Your task to perform on an android device: turn off notifications settings in the gmail app Image 0: 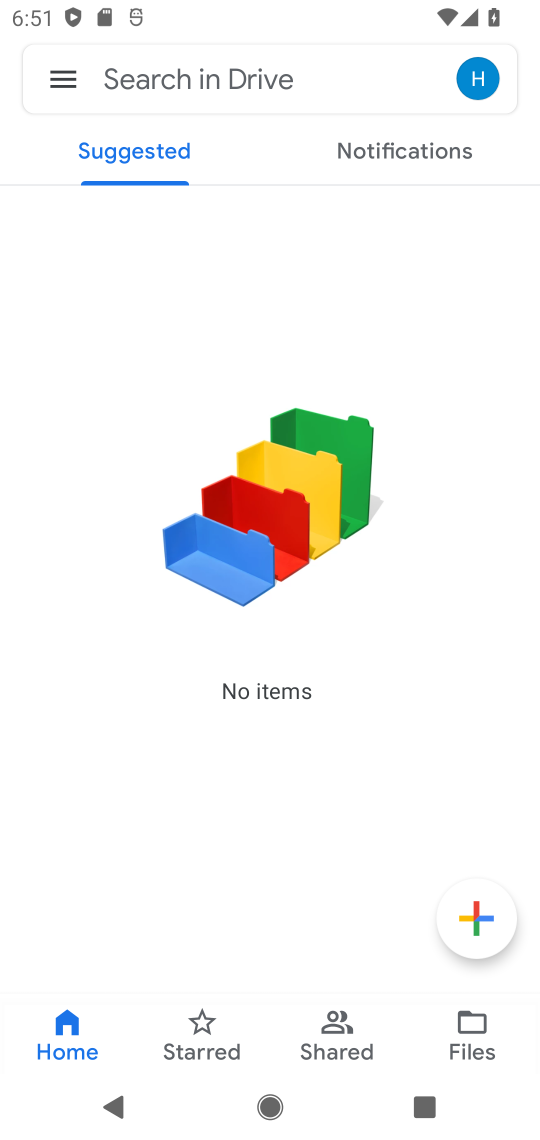
Step 0: press home button
Your task to perform on an android device: turn off notifications settings in the gmail app Image 1: 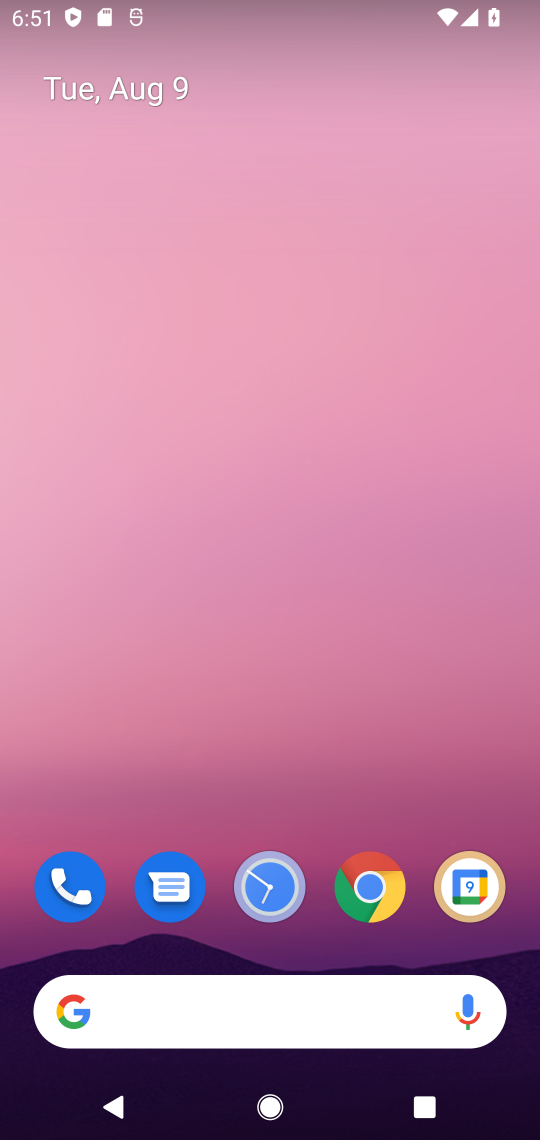
Step 1: drag from (319, 759) to (320, 24)
Your task to perform on an android device: turn off notifications settings in the gmail app Image 2: 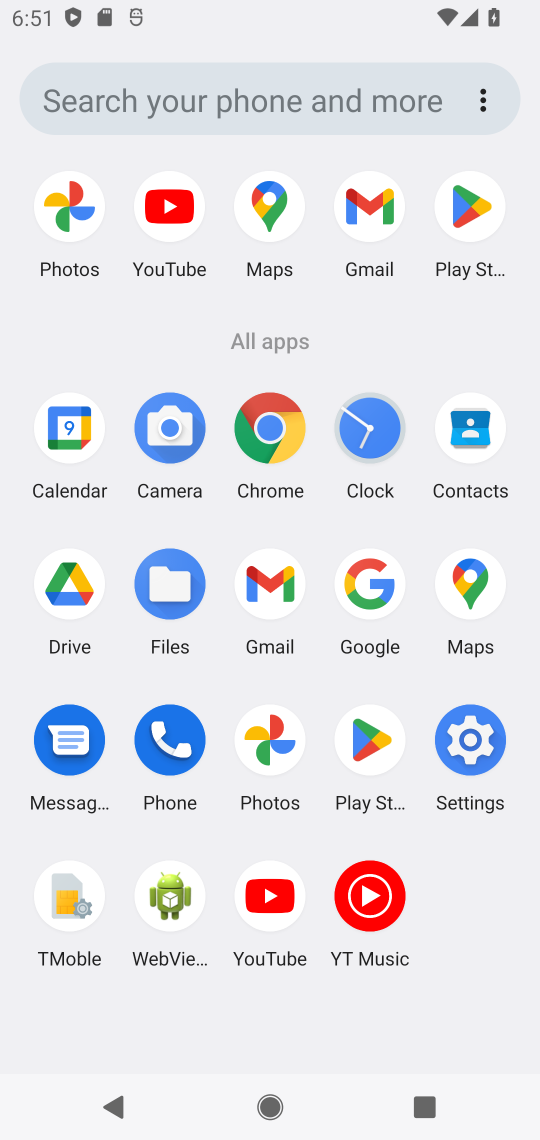
Step 2: click (369, 208)
Your task to perform on an android device: turn off notifications settings in the gmail app Image 3: 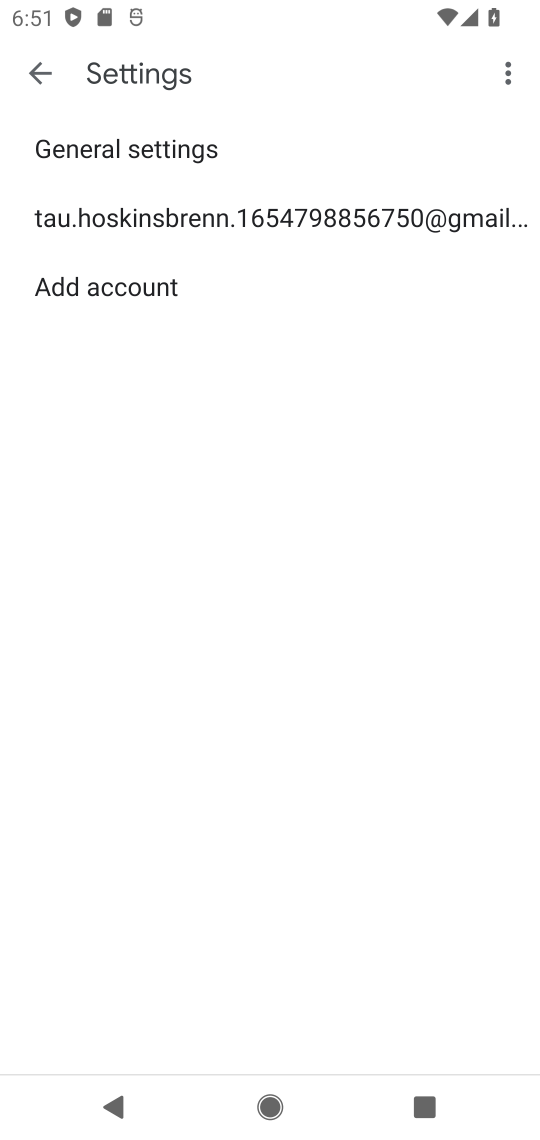
Step 3: click (369, 207)
Your task to perform on an android device: turn off notifications settings in the gmail app Image 4: 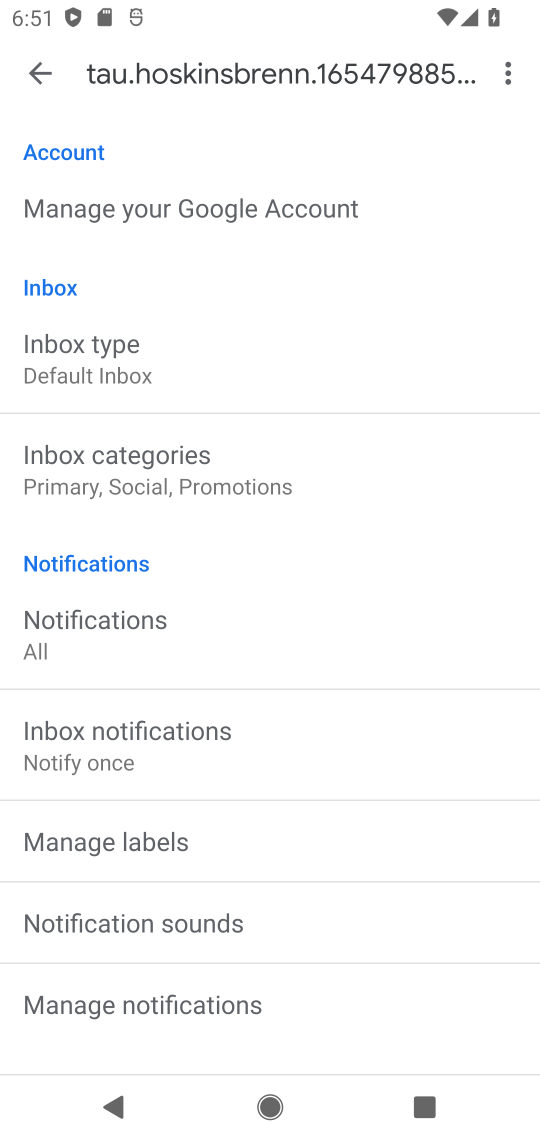
Step 4: click (192, 996)
Your task to perform on an android device: turn off notifications settings in the gmail app Image 5: 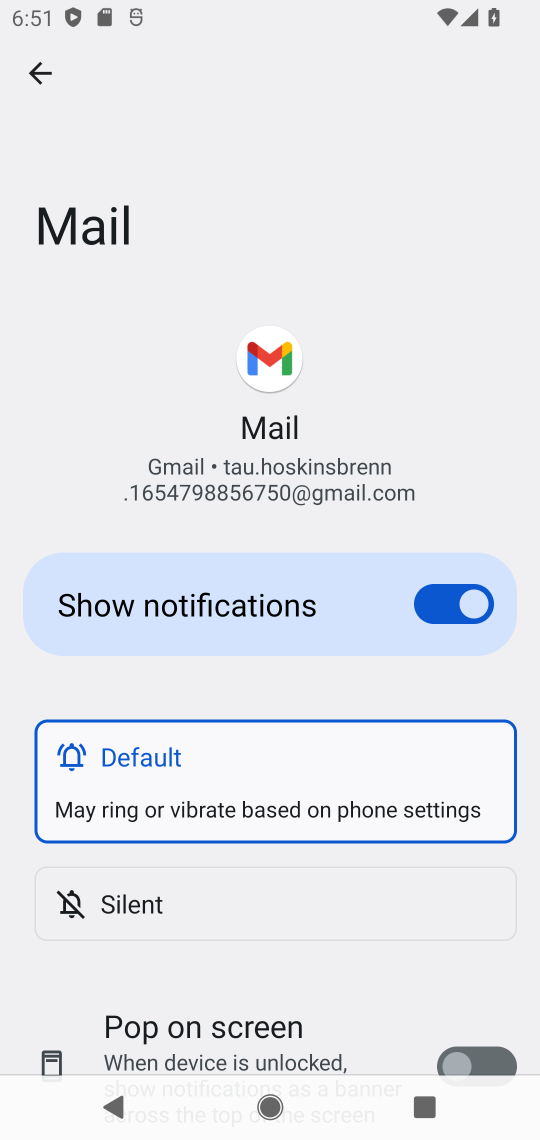
Step 5: click (443, 604)
Your task to perform on an android device: turn off notifications settings in the gmail app Image 6: 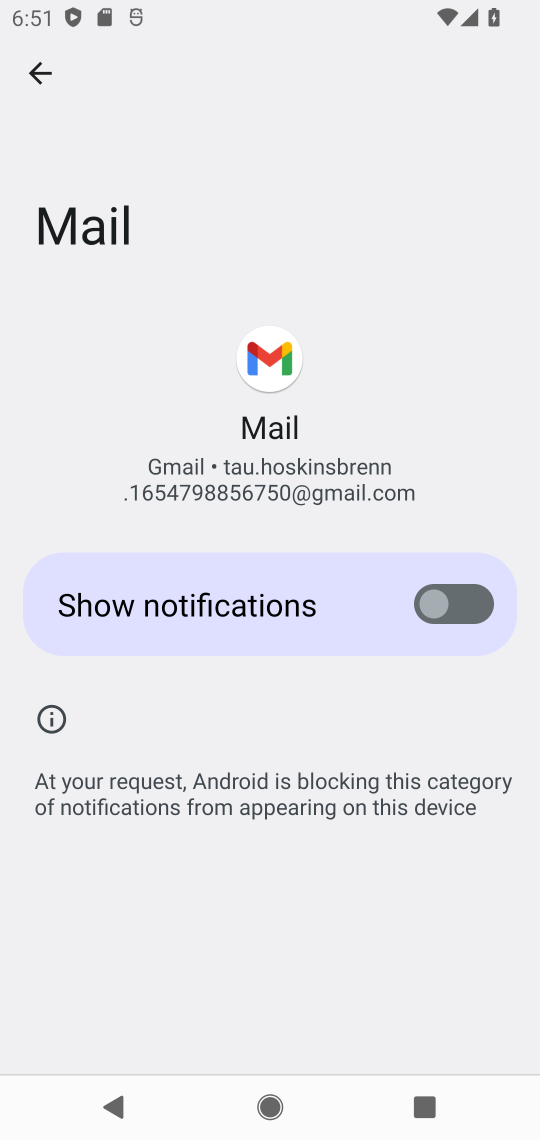
Step 6: task complete